Your task to perform on an android device: snooze an email in the gmail app Image 0: 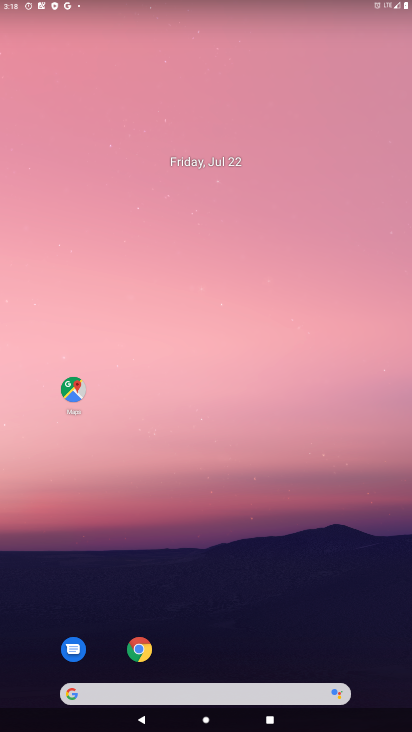
Step 0: drag from (275, 554) to (270, 47)
Your task to perform on an android device: snooze an email in the gmail app Image 1: 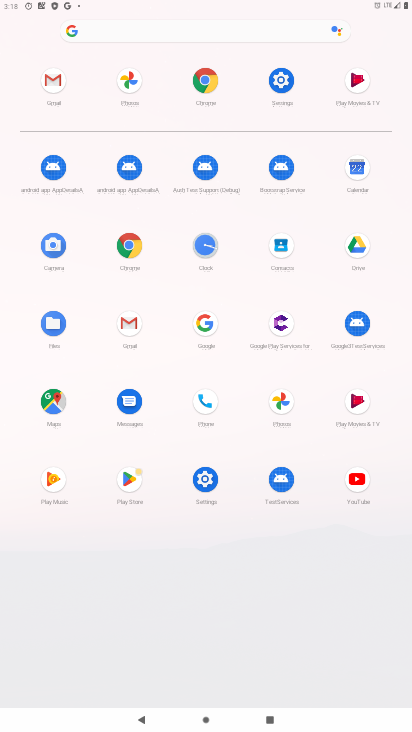
Step 1: click (53, 82)
Your task to perform on an android device: snooze an email in the gmail app Image 2: 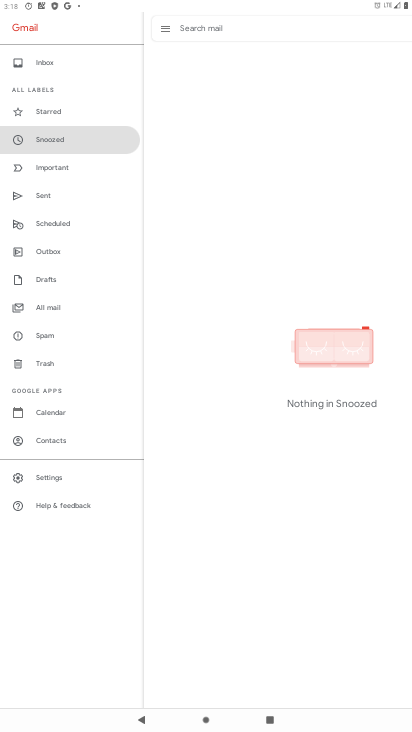
Step 2: click (48, 315)
Your task to perform on an android device: snooze an email in the gmail app Image 3: 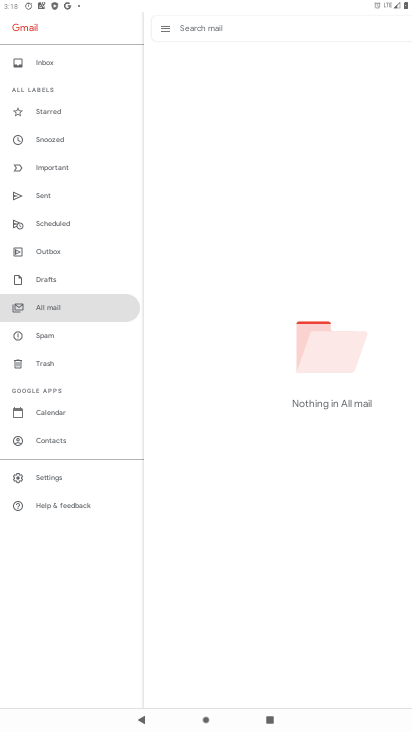
Step 3: task complete